Your task to perform on an android device: Add "usb-a" to the cart on ebay.com Image 0: 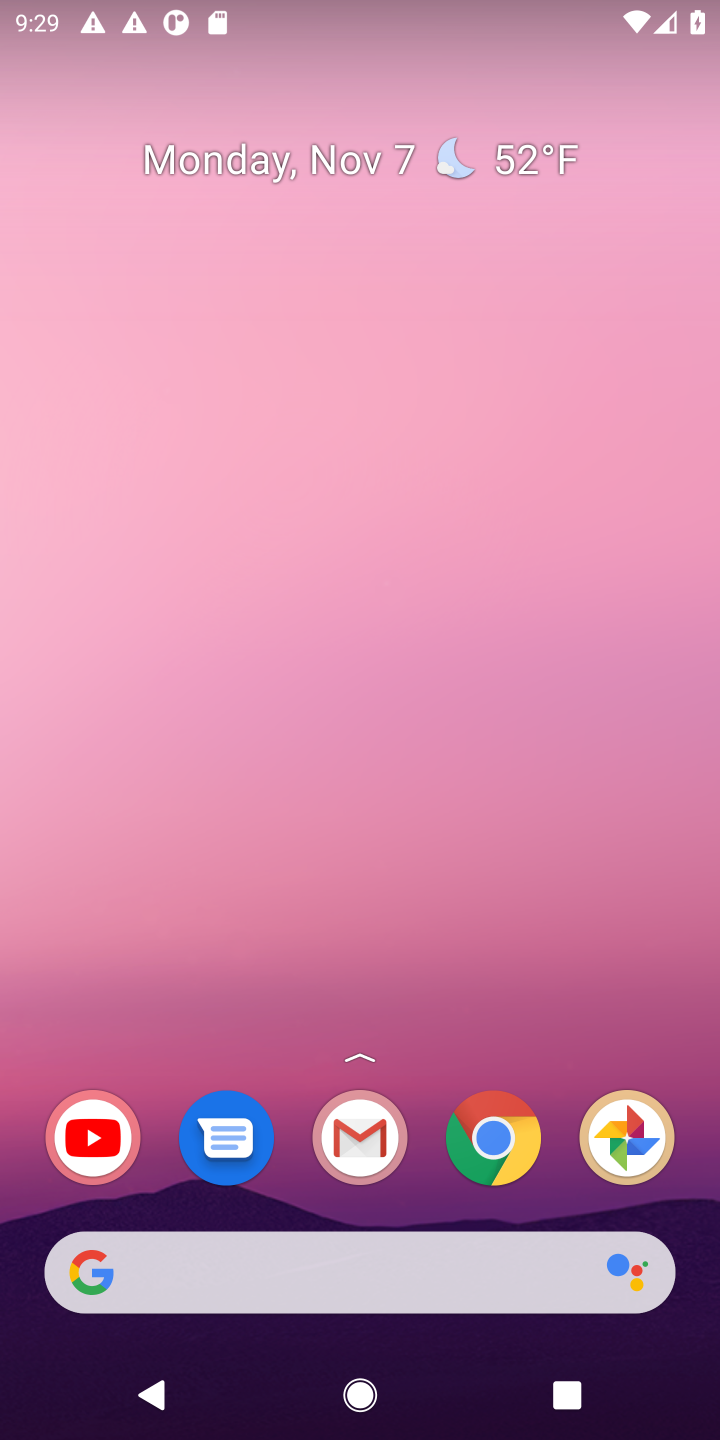
Step 0: click (483, 1140)
Your task to perform on an android device: Add "usb-a" to the cart on ebay.com Image 1: 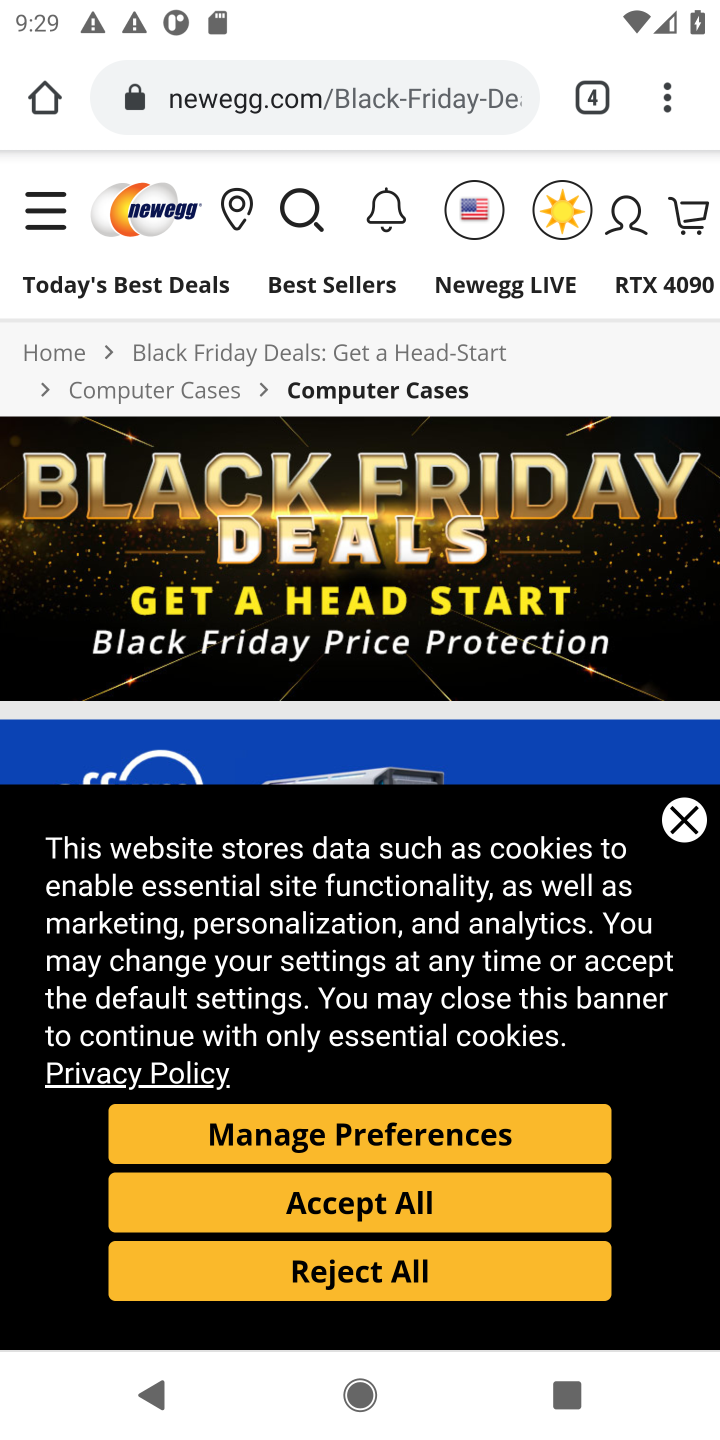
Step 1: click (587, 103)
Your task to perform on an android device: Add "usb-a" to the cart on ebay.com Image 2: 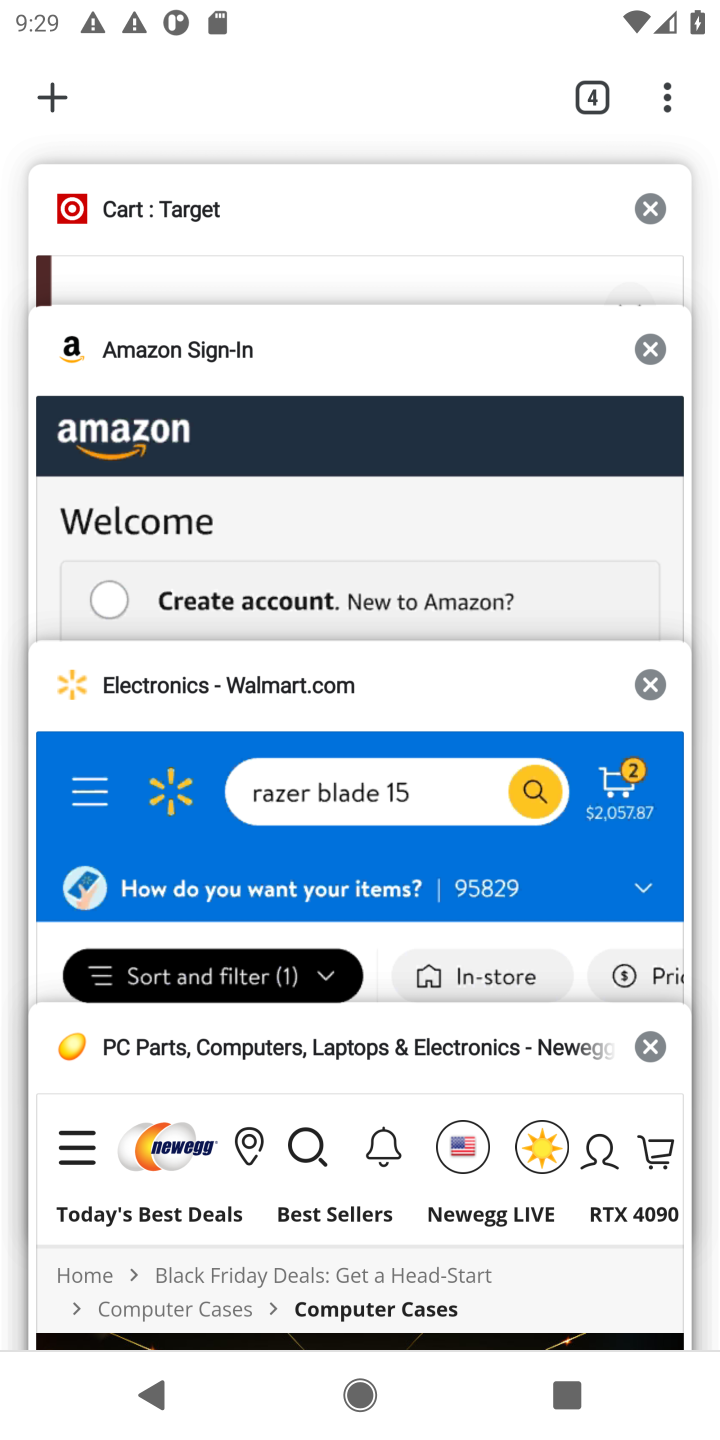
Step 2: click (34, 93)
Your task to perform on an android device: Add "usb-a" to the cart on ebay.com Image 3: 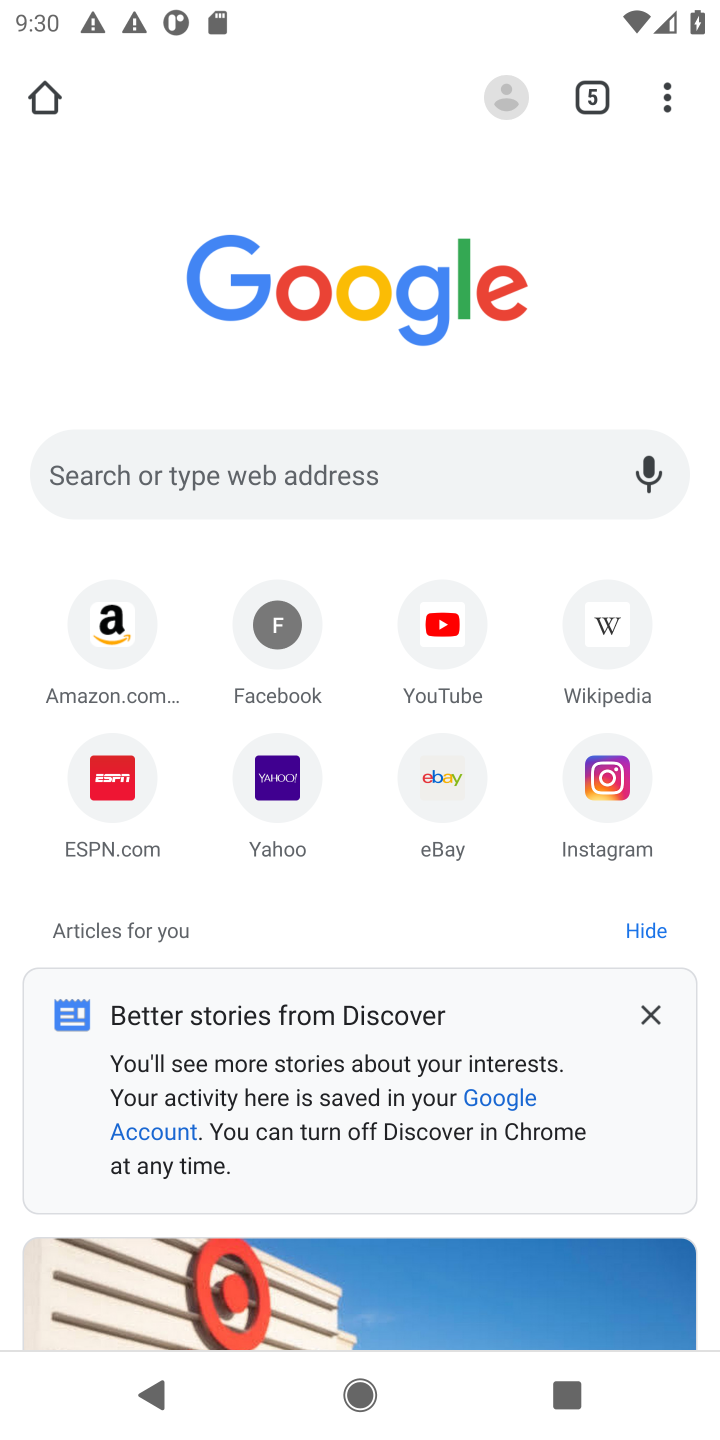
Step 3: click (454, 761)
Your task to perform on an android device: Add "usb-a" to the cart on ebay.com Image 4: 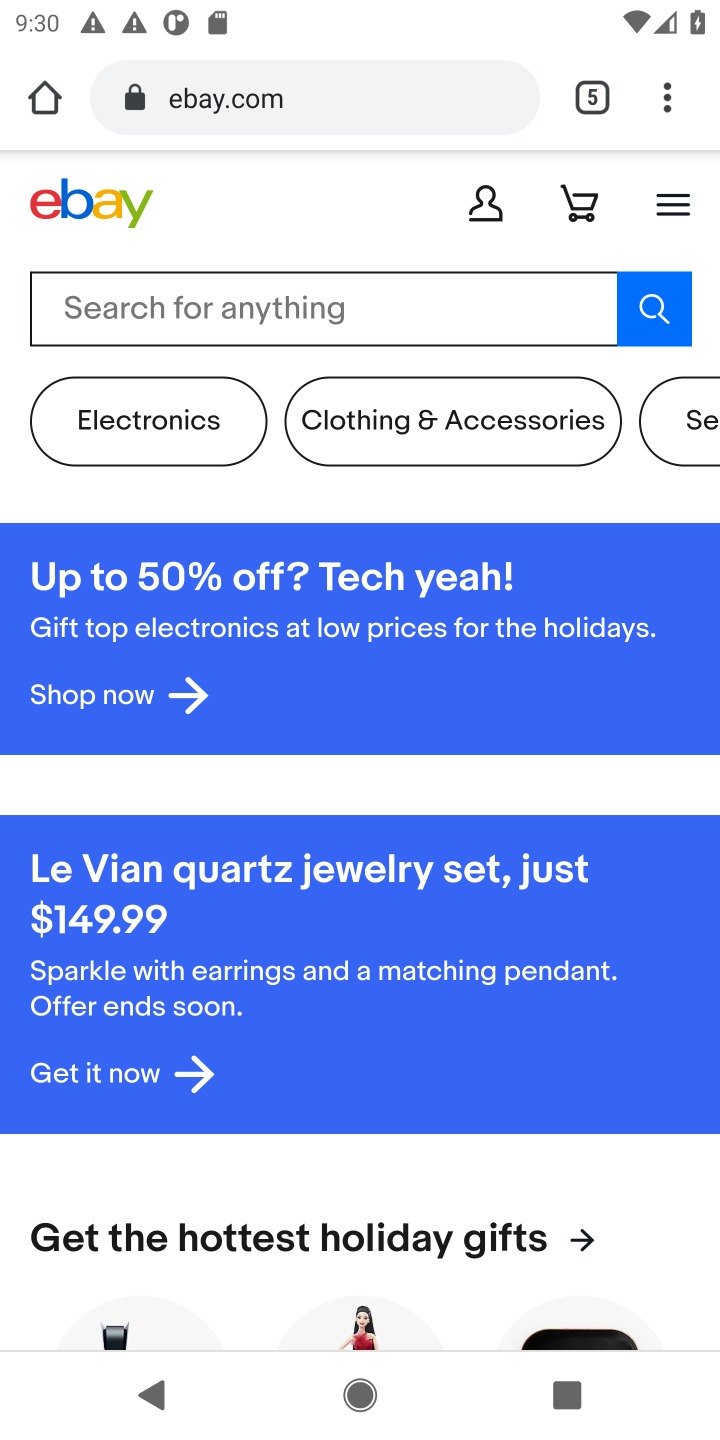
Step 4: click (125, 315)
Your task to perform on an android device: Add "usb-a" to the cart on ebay.com Image 5: 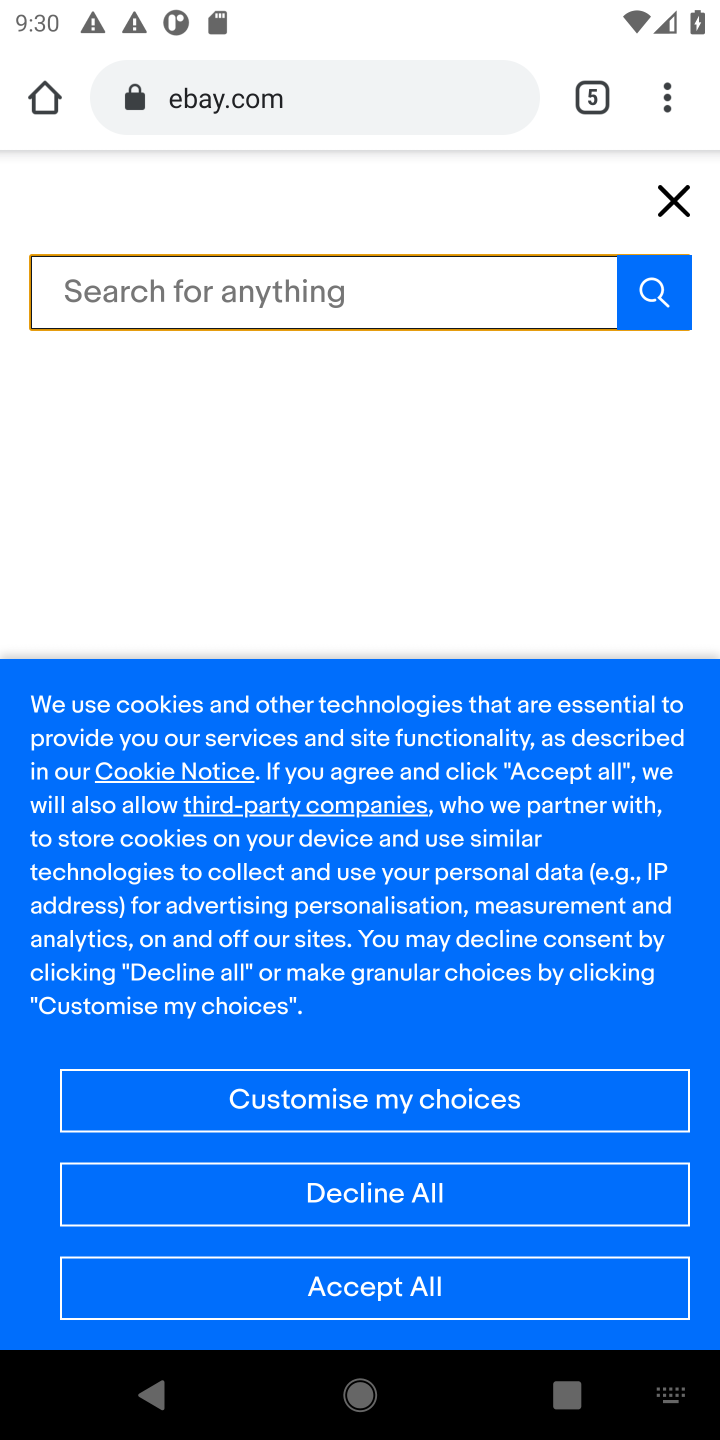
Step 5: type "usb-a"
Your task to perform on an android device: Add "usb-a" to the cart on ebay.com Image 6: 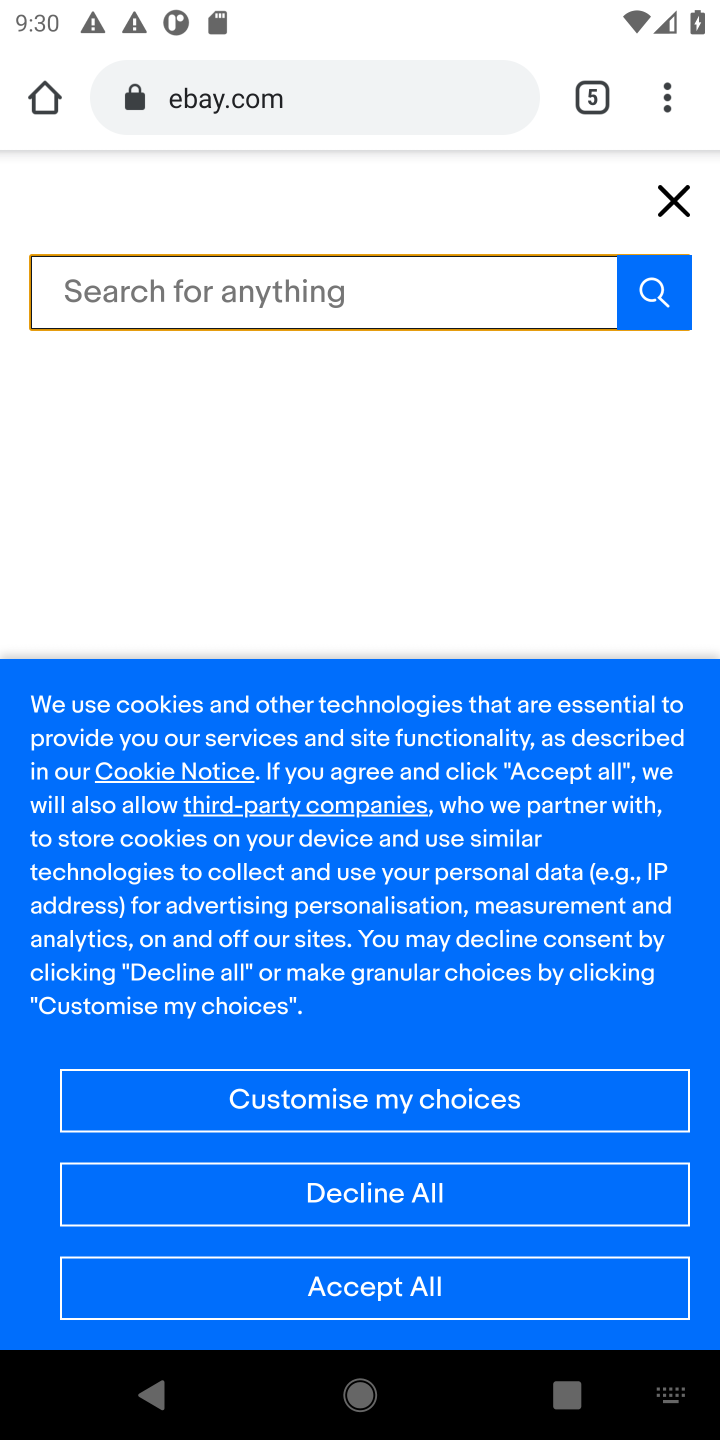
Step 6: click (461, 1295)
Your task to perform on an android device: Add "usb-a" to the cart on ebay.com Image 7: 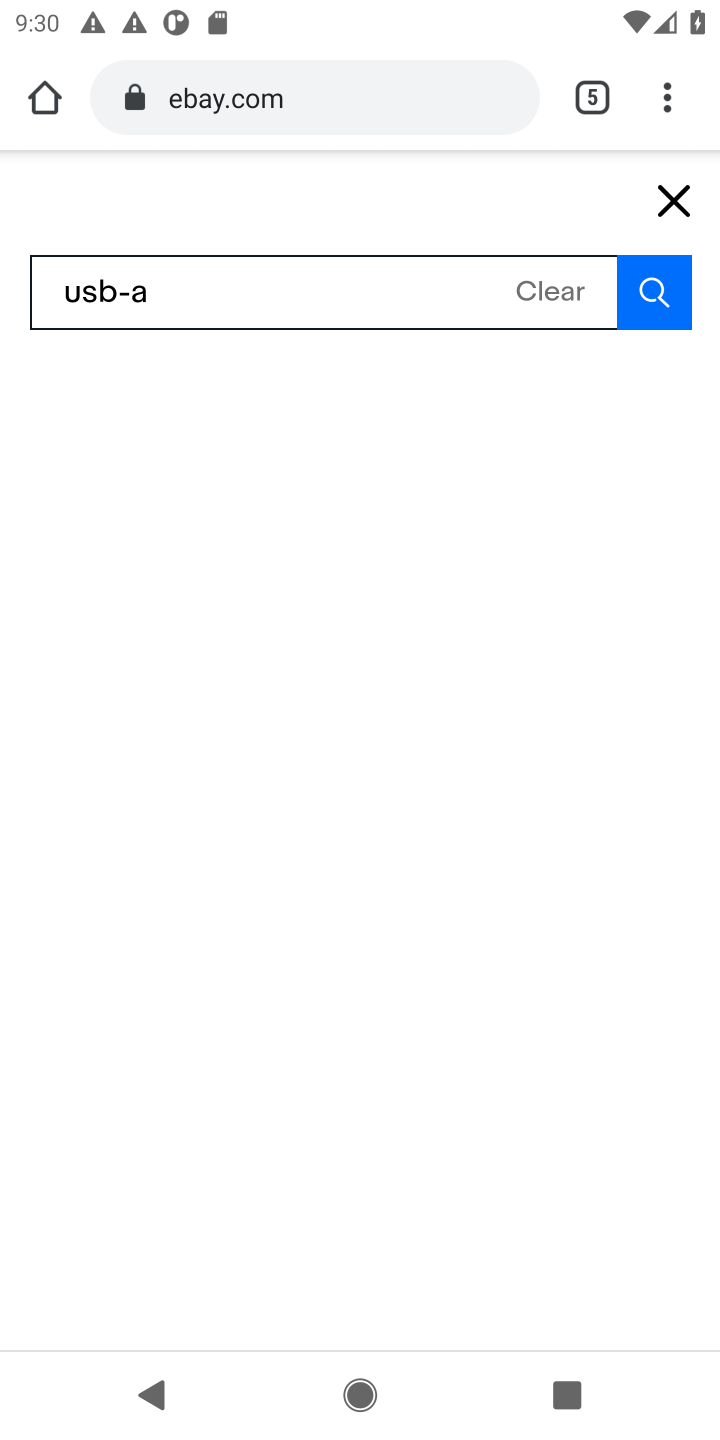
Step 7: click (648, 279)
Your task to perform on an android device: Add "usb-a" to the cart on ebay.com Image 8: 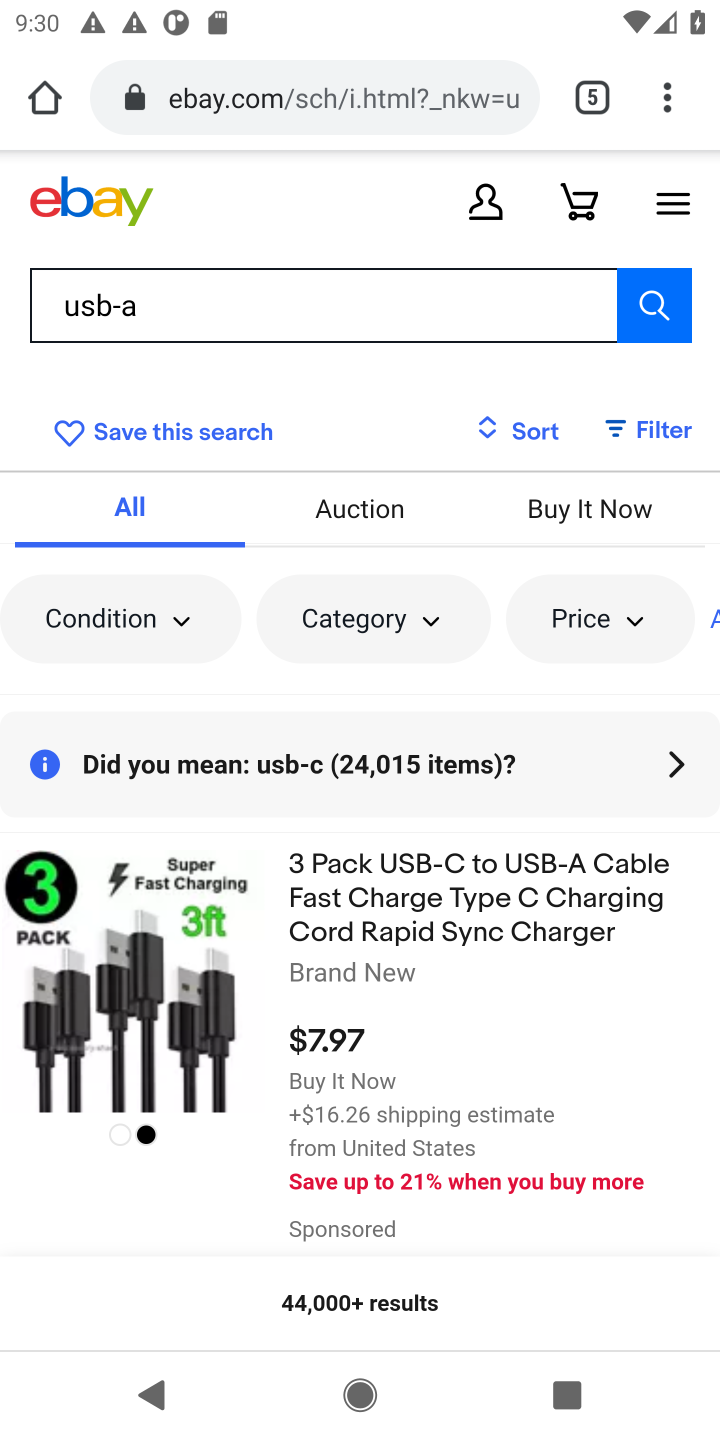
Step 8: drag from (412, 1066) to (675, 778)
Your task to perform on an android device: Add "usb-a" to the cart on ebay.com Image 9: 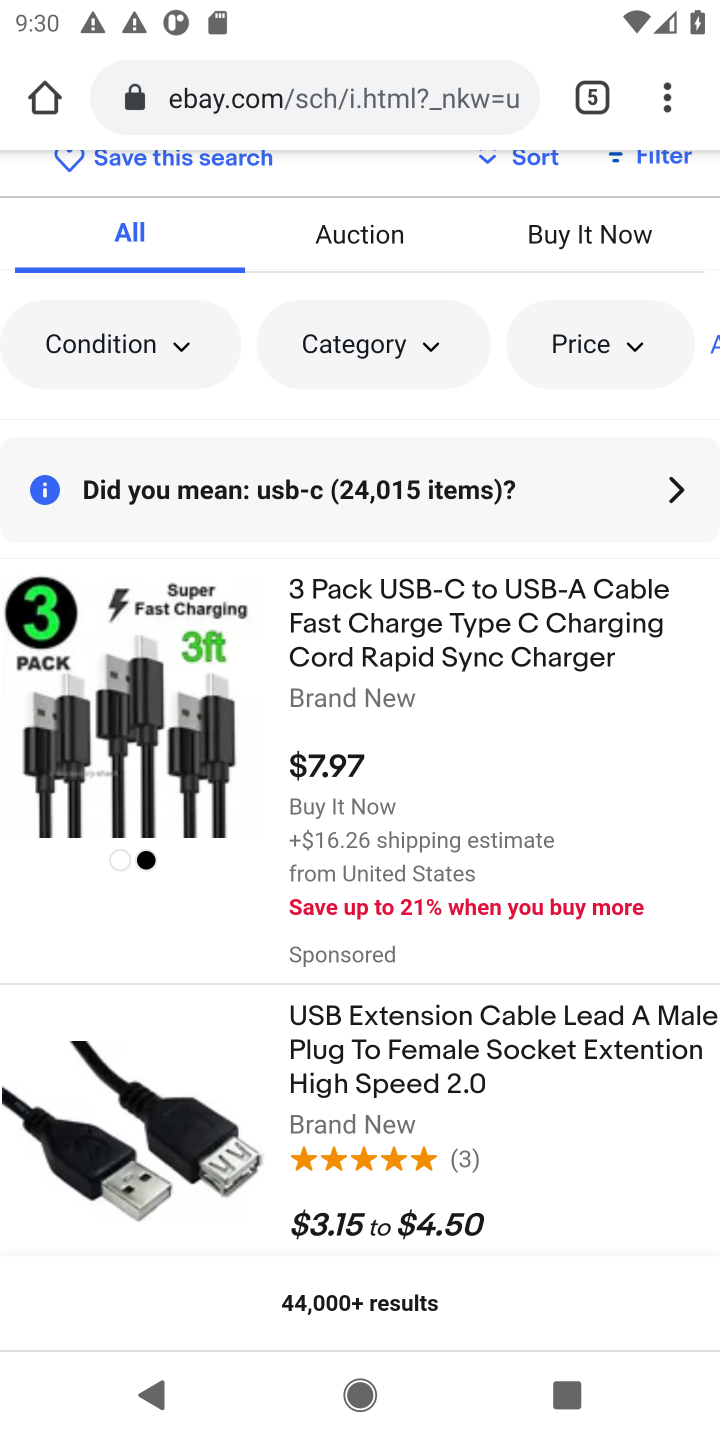
Step 9: click (569, 1031)
Your task to perform on an android device: Add "usb-a" to the cart on ebay.com Image 10: 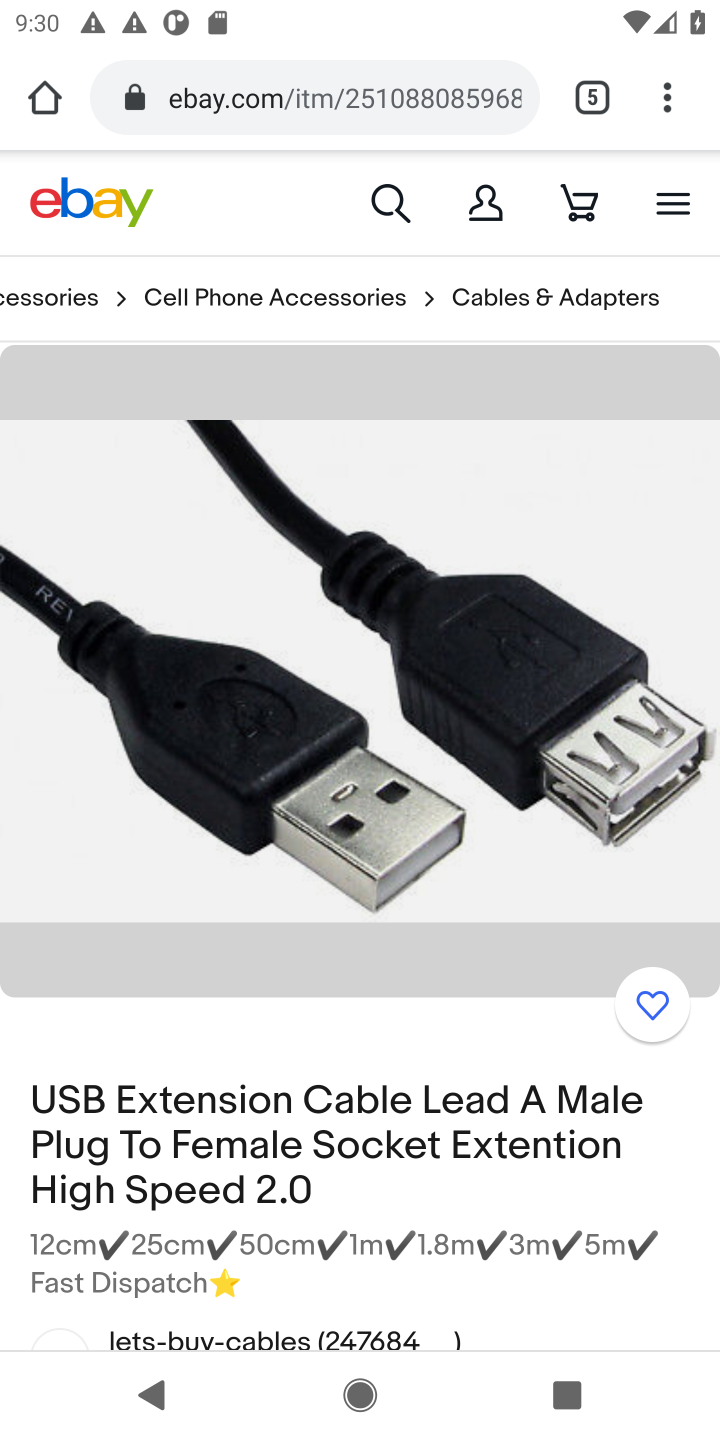
Step 10: drag from (437, 1157) to (626, 557)
Your task to perform on an android device: Add "usb-a" to the cart on ebay.com Image 11: 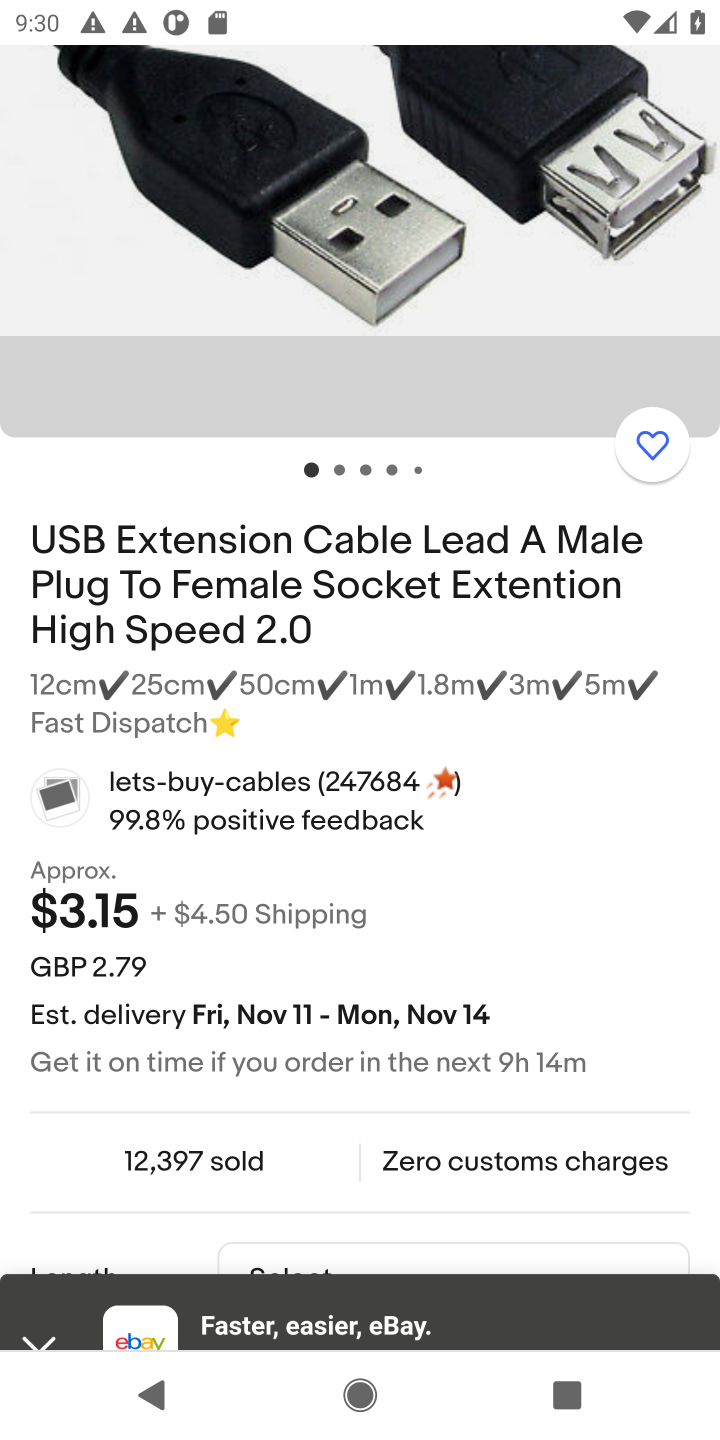
Step 11: drag from (414, 1173) to (604, 225)
Your task to perform on an android device: Add "usb-a" to the cart on ebay.com Image 12: 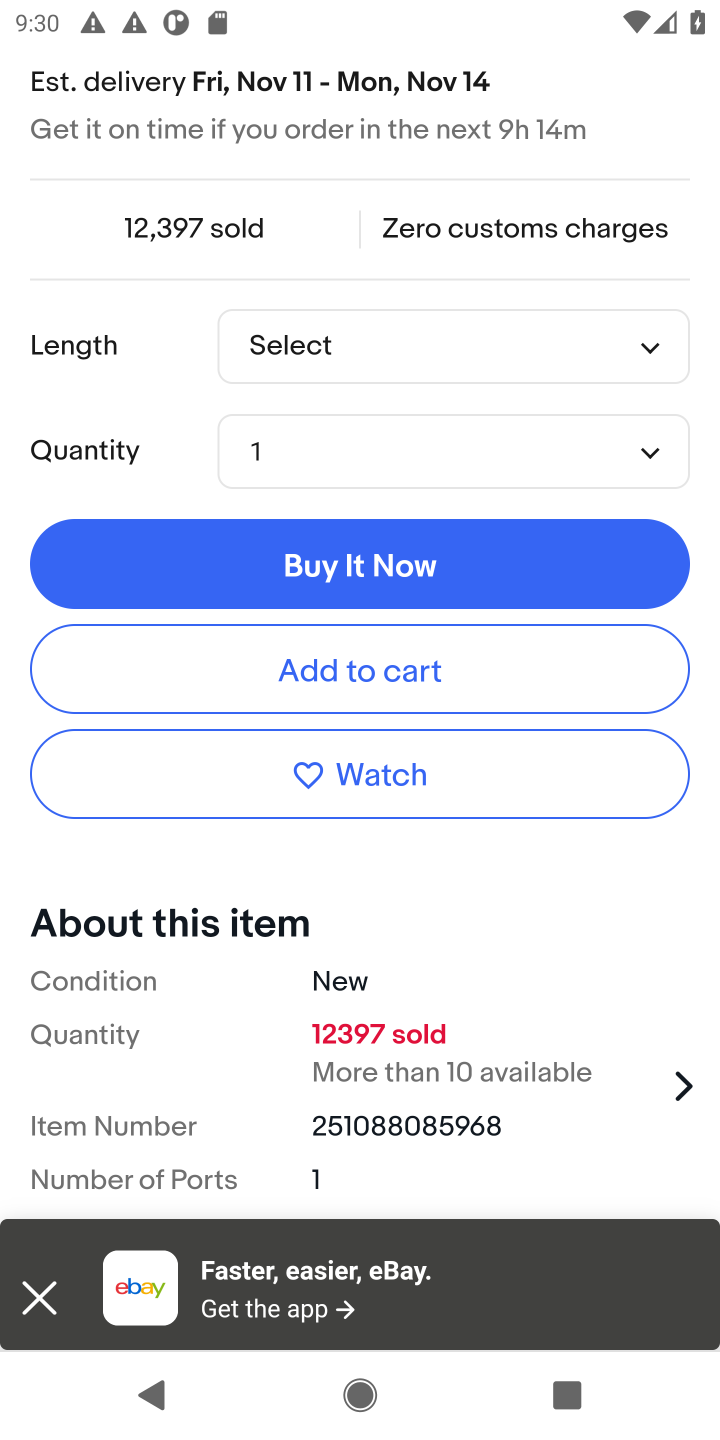
Step 12: click (652, 346)
Your task to perform on an android device: Add "usb-a" to the cart on ebay.com Image 13: 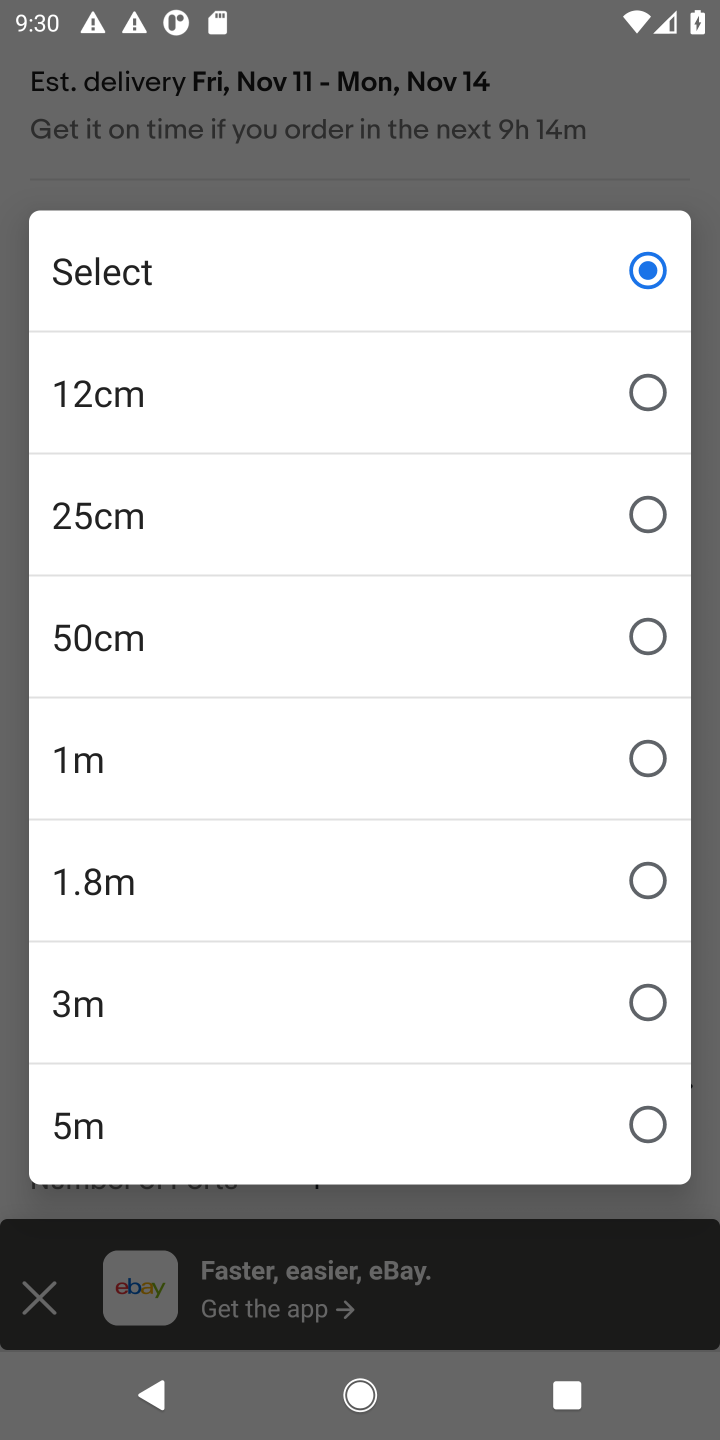
Step 13: click (649, 382)
Your task to perform on an android device: Add "usb-a" to the cart on ebay.com Image 14: 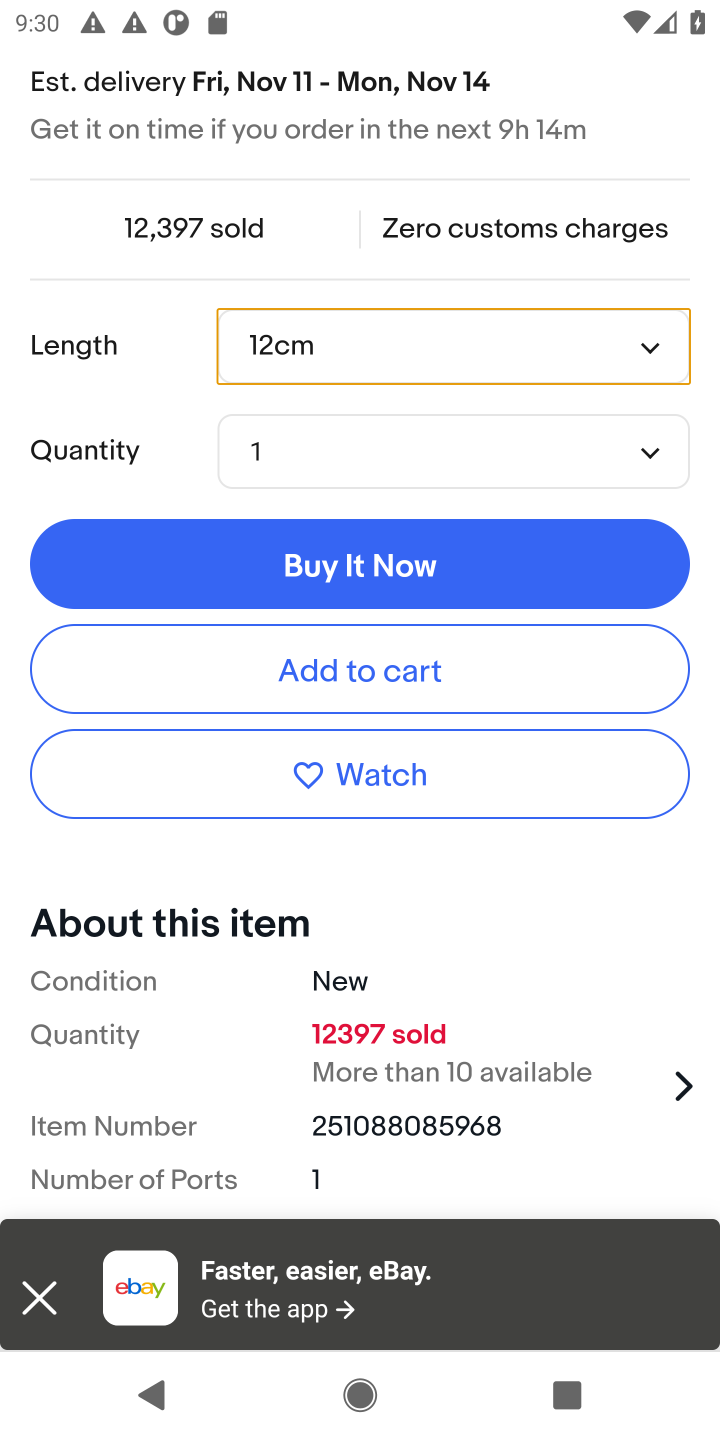
Step 14: click (651, 445)
Your task to perform on an android device: Add "usb-a" to the cart on ebay.com Image 15: 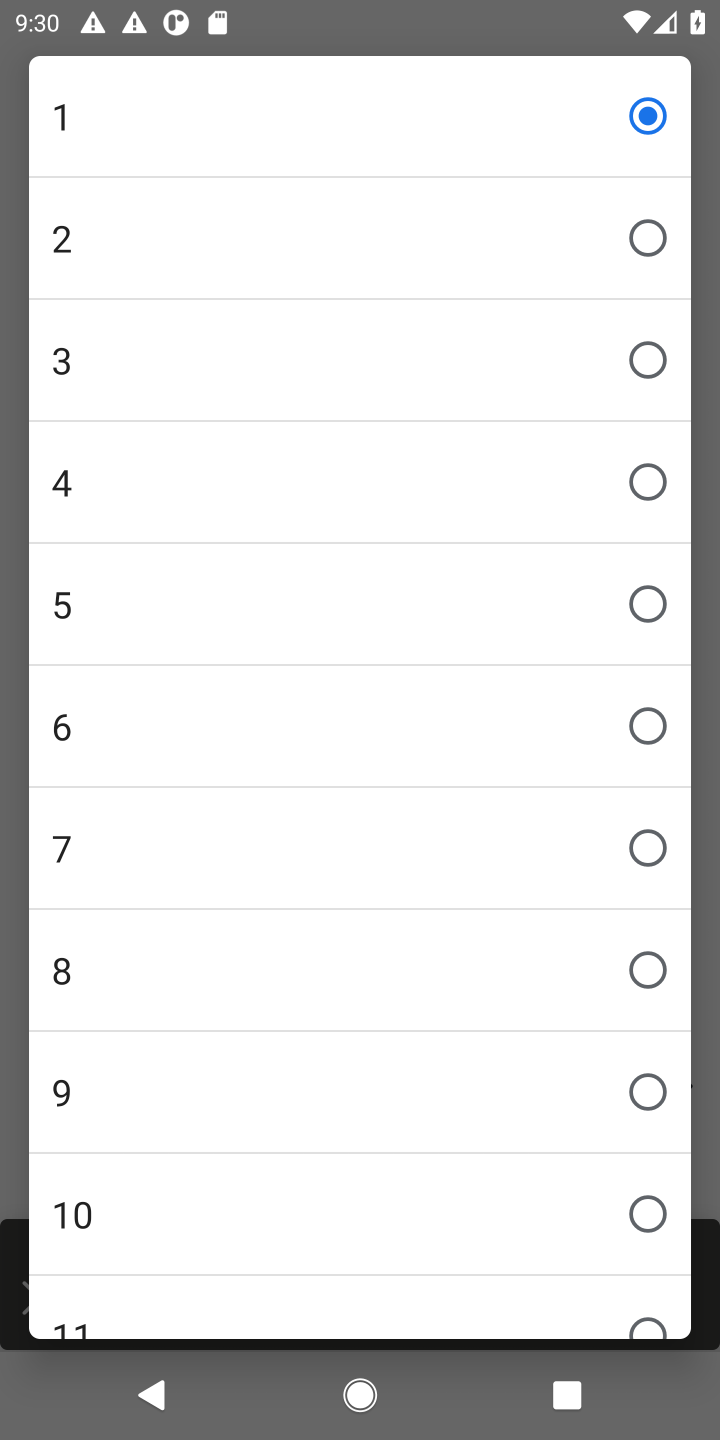
Step 15: click (707, 1268)
Your task to perform on an android device: Add "usb-a" to the cart on ebay.com Image 16: 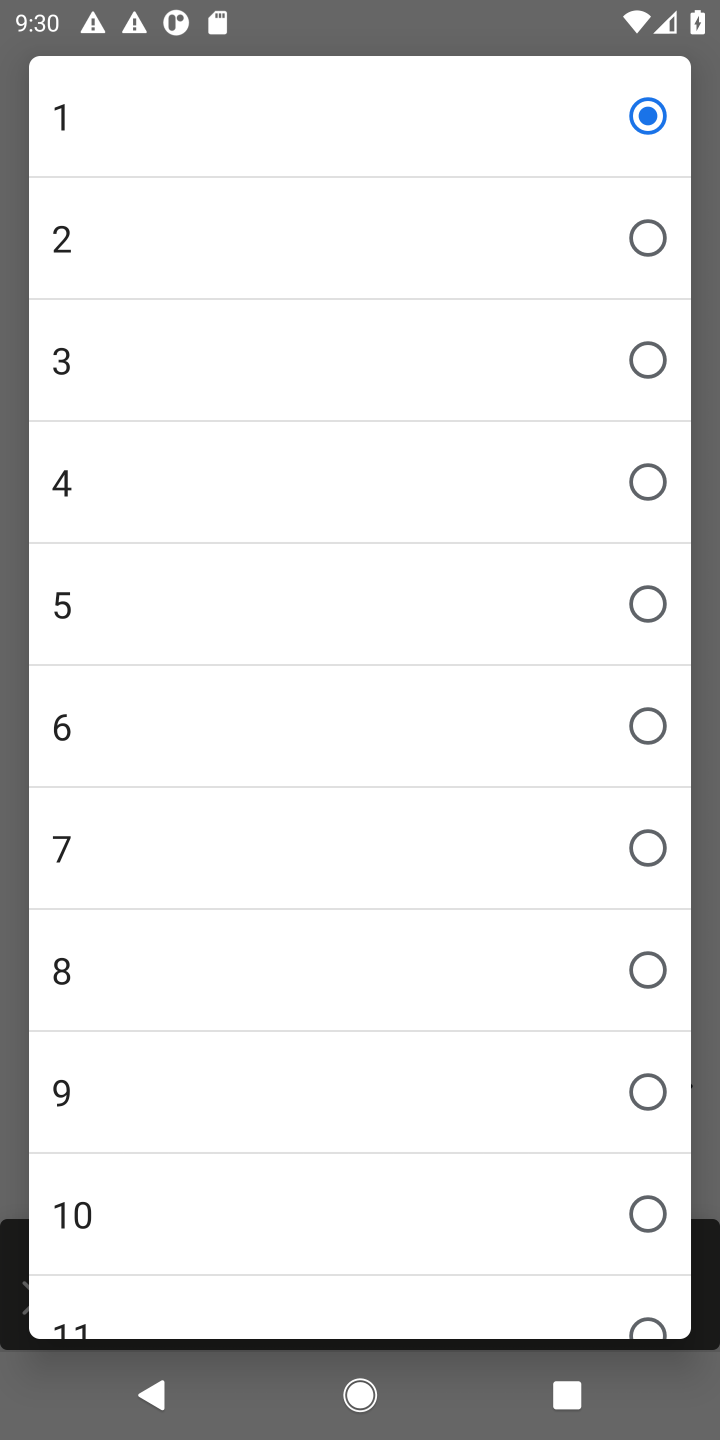
Step 16: click (711, 626)
Your task to perform on an android device: Add "usb-a" to the cart on ebay.com Image 17: 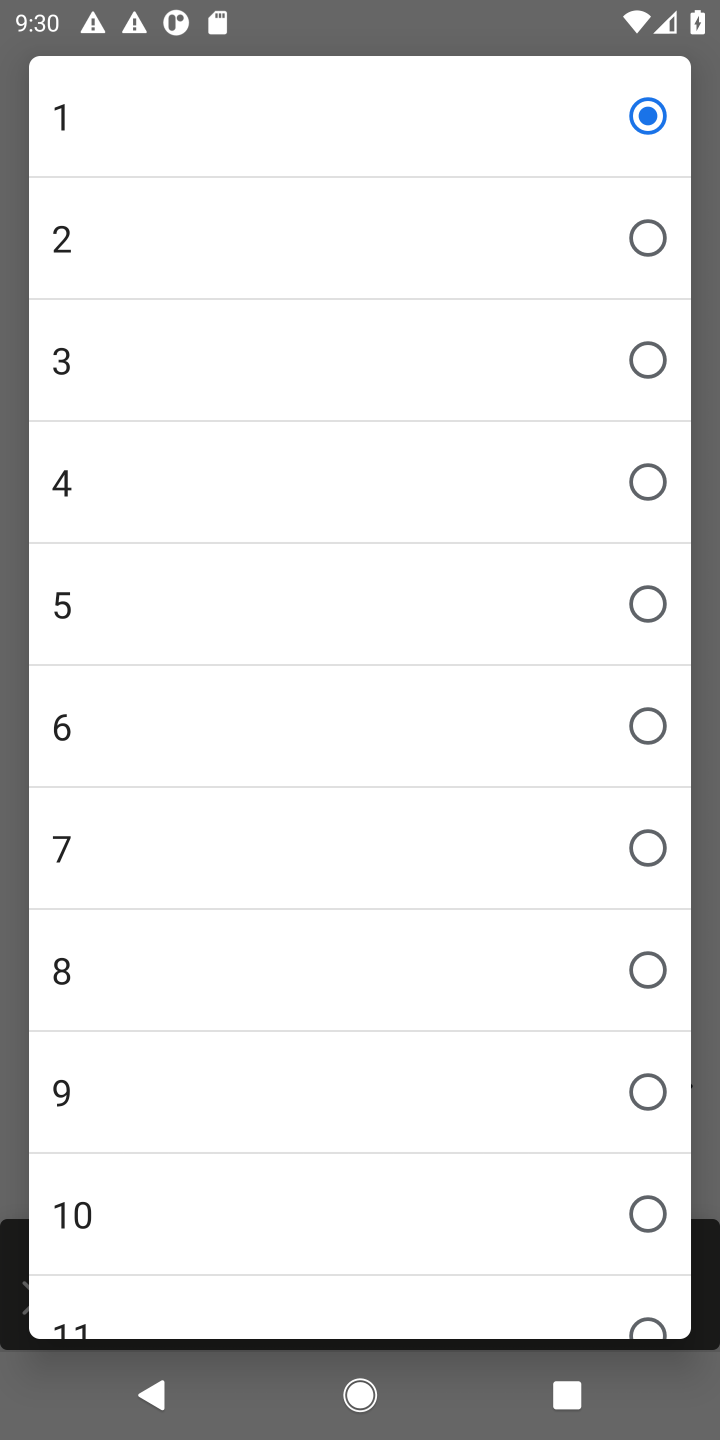
Step 17: click (550, 41)
Your task to perform on an android device: Add "usb-a" to the cart on ebay.com Image 18: 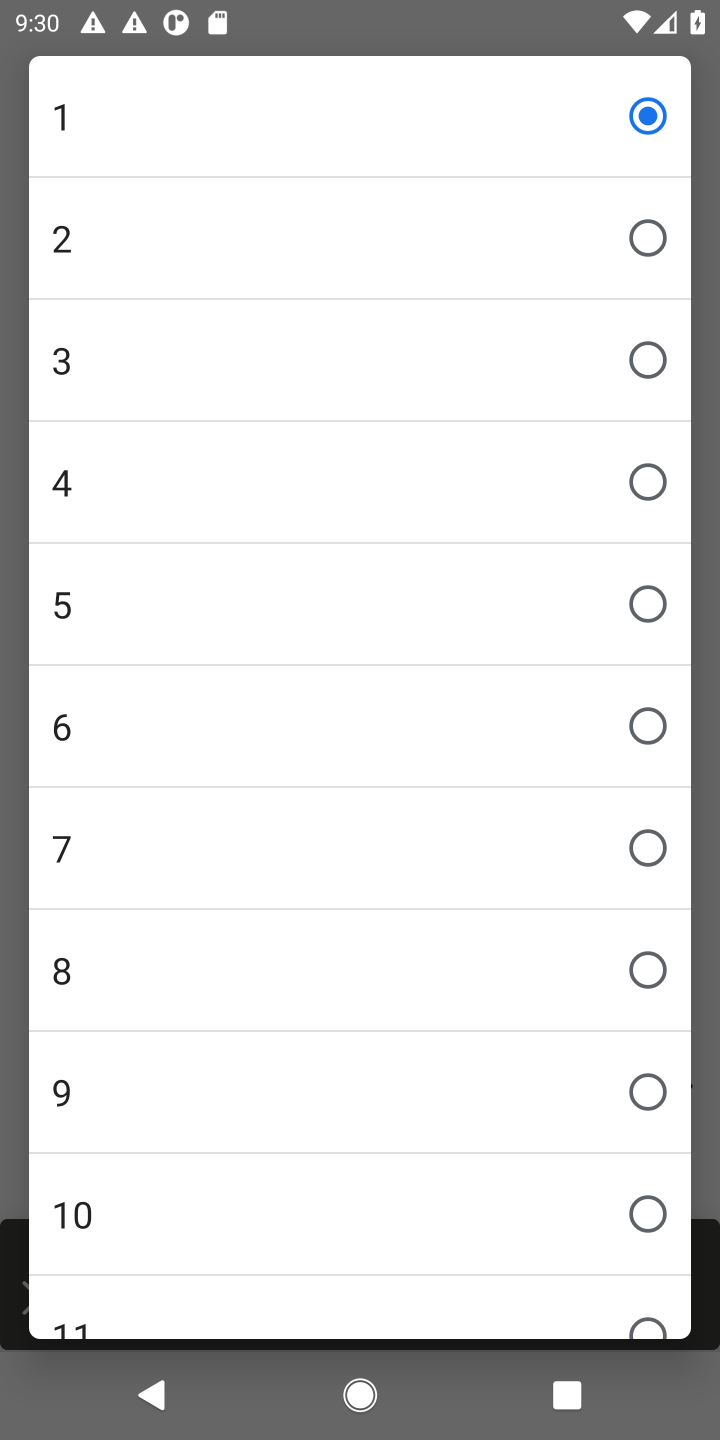
Step 18: click (646, 251)
Your task to perform on an android device: Add "usb-a" to the cart on ebay.com Image 19: 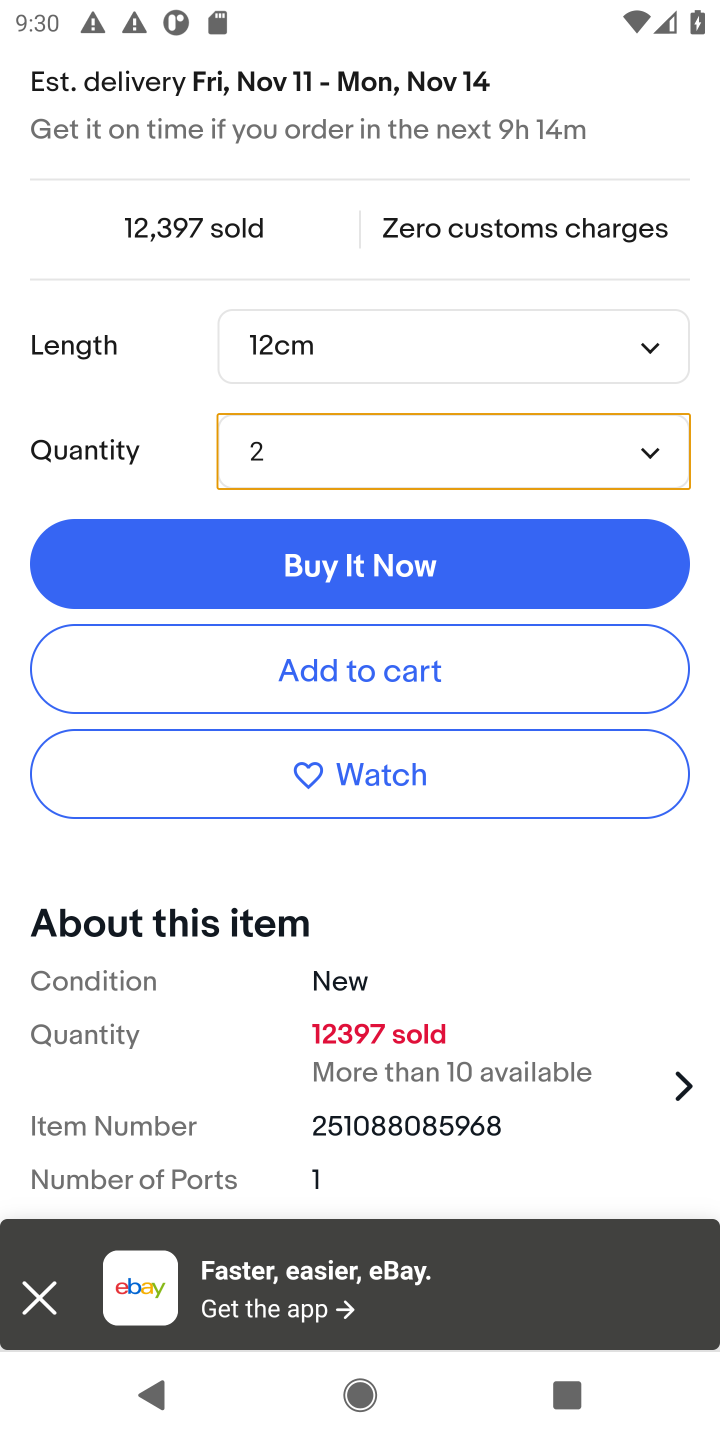
Step 19: click (420, 666)
Your task to perform on an android device: Add "usb-a" to the cart on ebay.com Image 20: 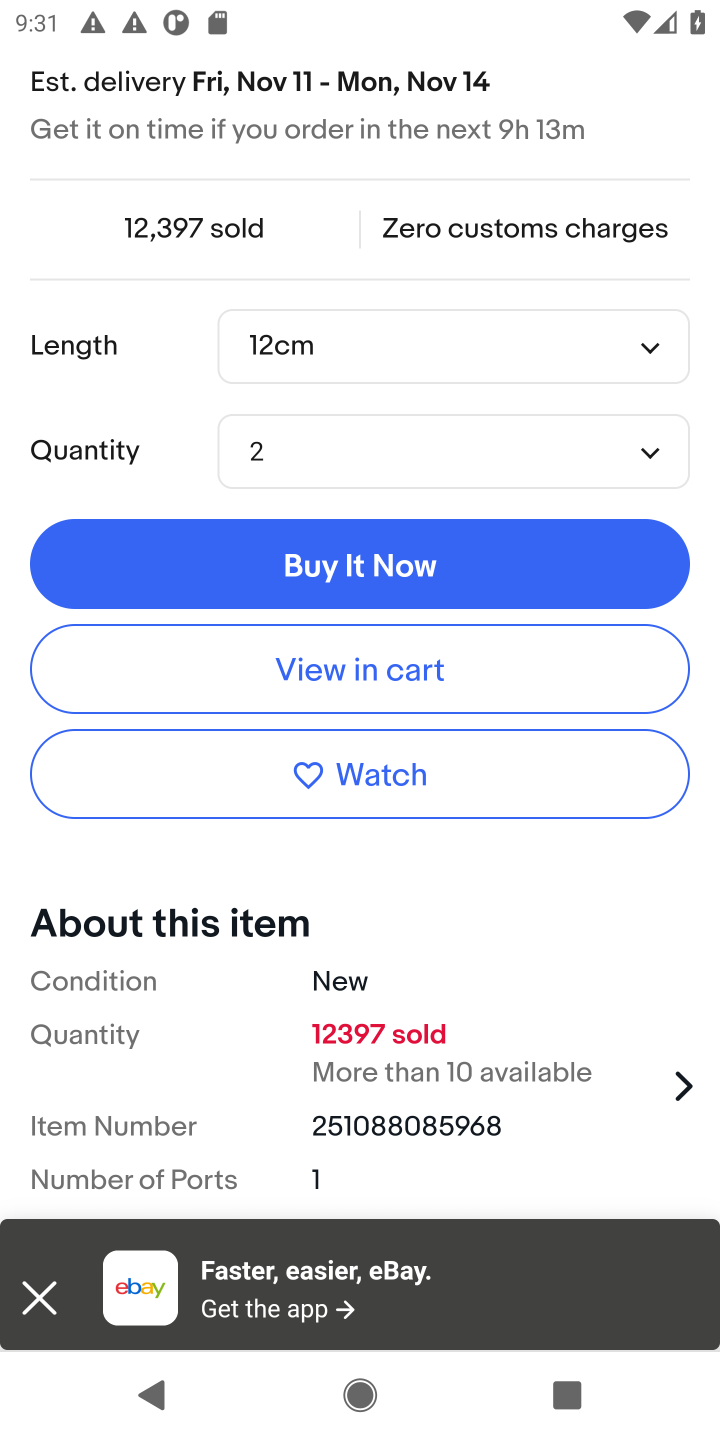
Step 20: task complete